Your task to perform on an android device: How do I get to the nearest Starbucks? Image 0: 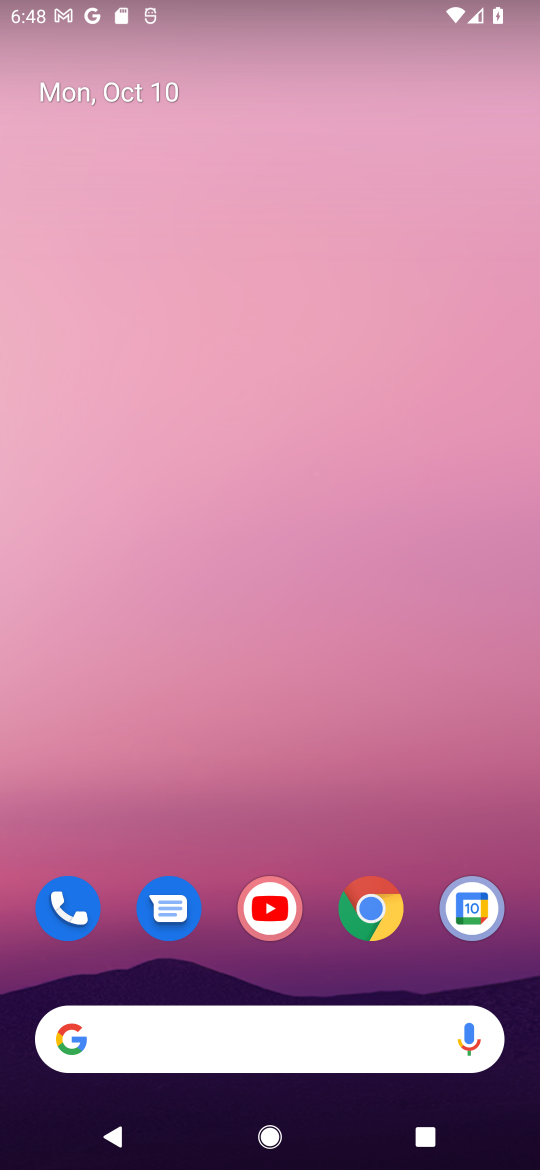
Step 0: drag from (316, 987) to (369, 8)
Your task to perform on an android device: How do I get to the nearest Starbucks? Image 1: 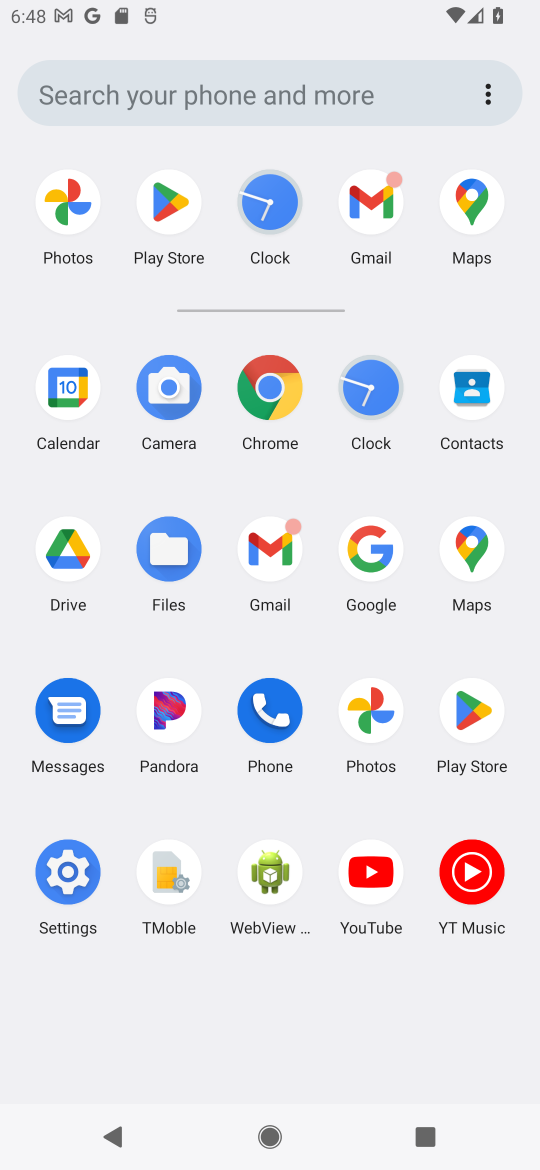
Step 1: click (258, 390)
Your task to perform on an android device: How do I get to the nearest Starbucks? Image 2: 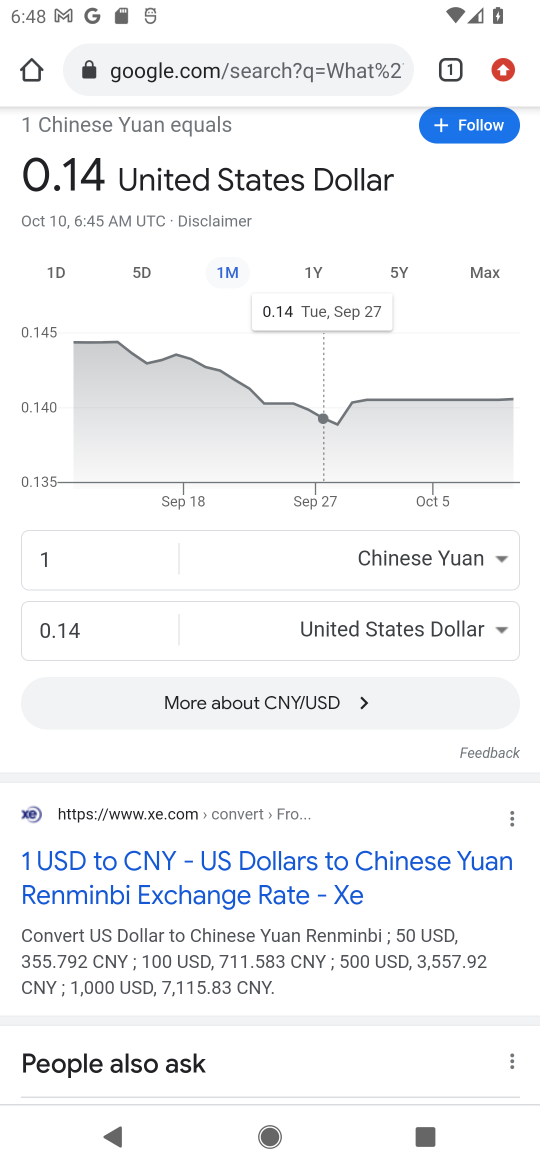
Step 2: click (214, 58)
Your task to perform on an android device: How do I get to the nearest Starbucks? Image 3: 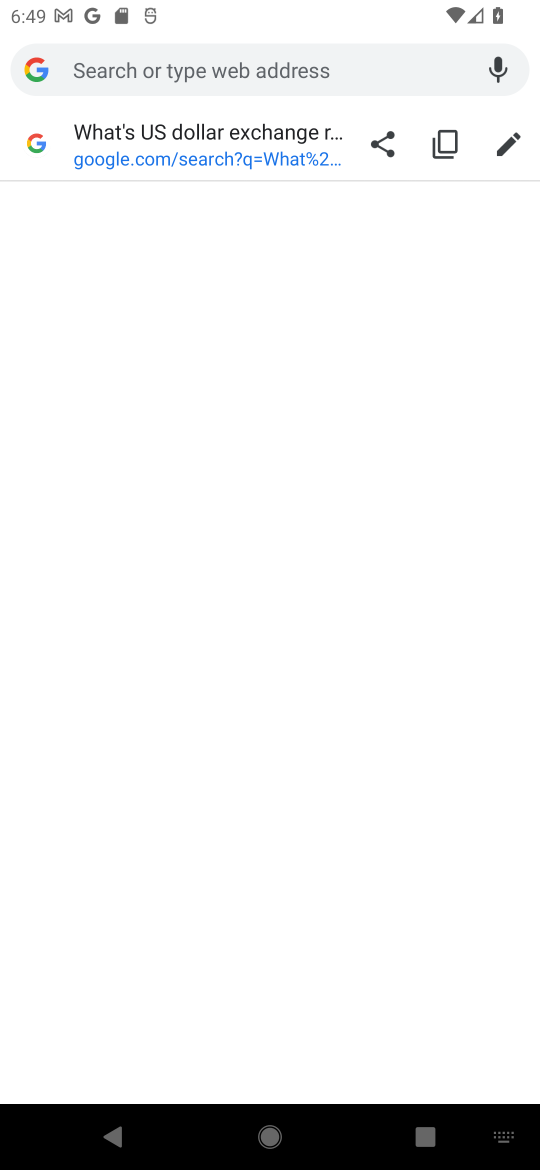
Step 3: type "How do I get to the nearest Starbucks?"
Your task to perform on an android device: How do I get to the nearest Starbucks? Image 4: 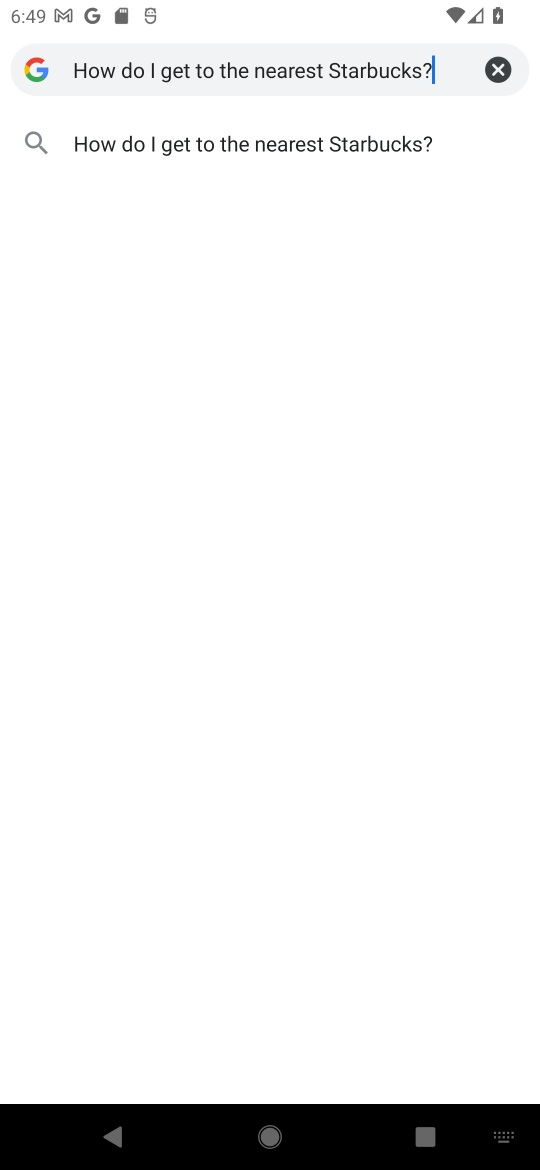
Step 4: press enter
Your task to perform on an android device: How do I get to the nearest Starbucks? Image 5: 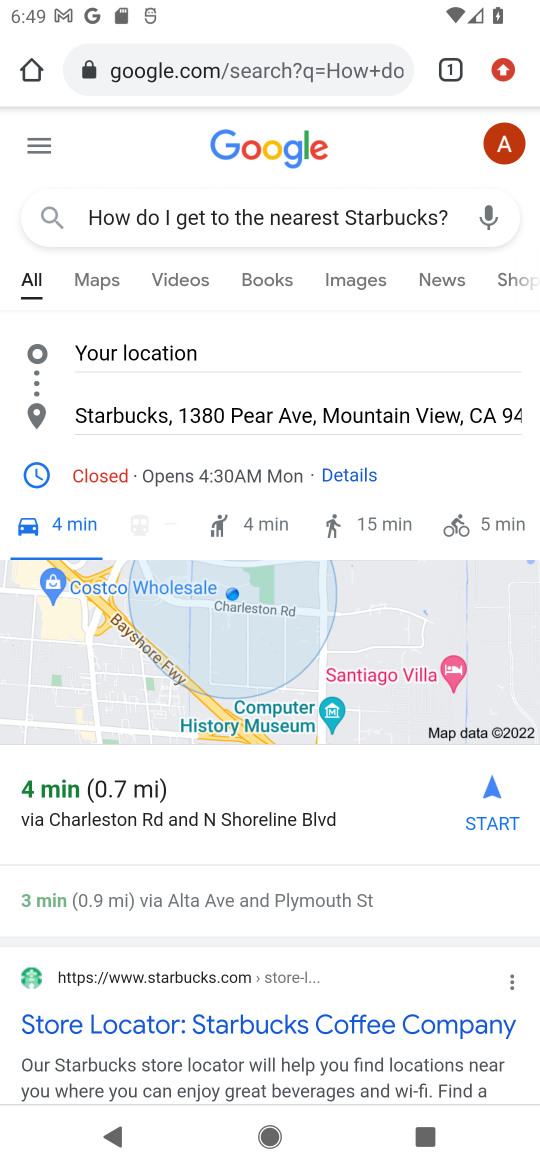
Step 5: task complete